Your task to perform on an android device: open app "LinkedIn" (install if not already installed) and enter user name: "dirt@inbox.com" and password: "receptionist" Image 0: 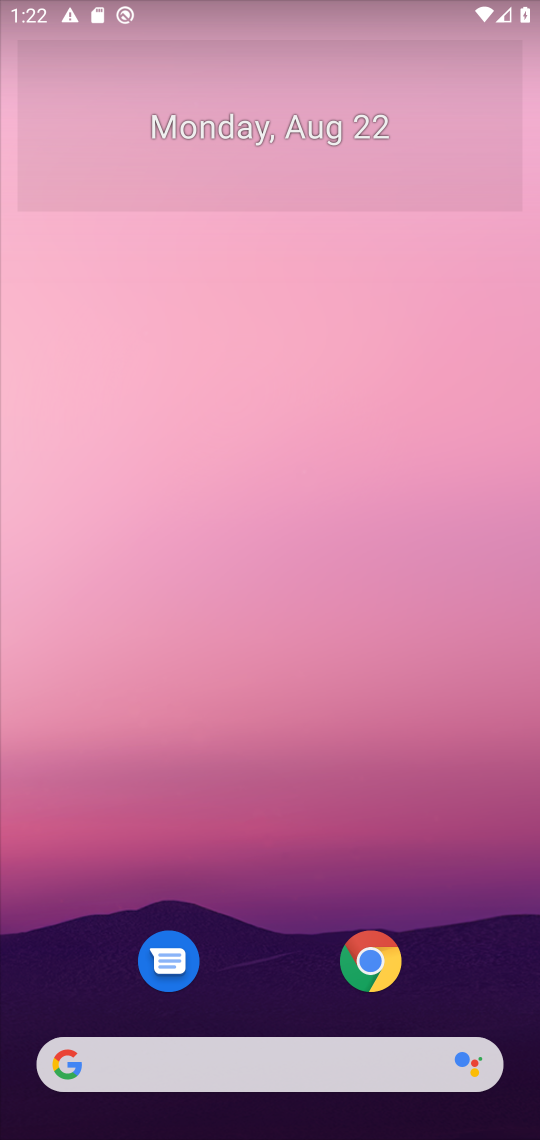
Step 0: press back button
Your task to perform on an android device: open app "LinkedIn" (install if not already installed) and enter user name: "dirt@inbox.com" and password: "receptionist" Image 1: 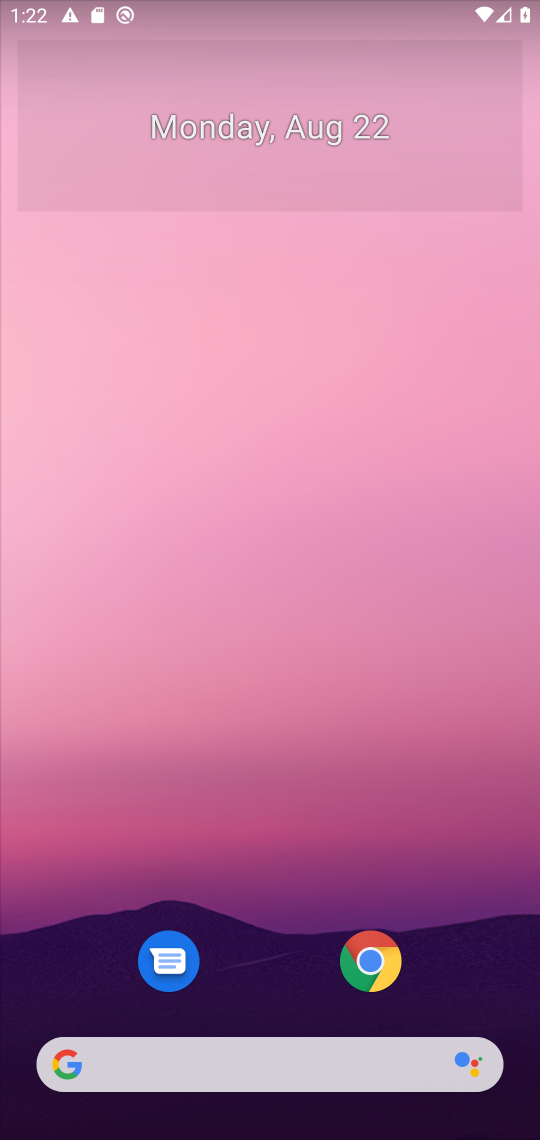
Step 1: press home button
Your task to perform on an android device: open app "LinkedIn" (install if not already installed) and enter user name: "dirt@inbox.com" and password: "receptionist" Image 2: 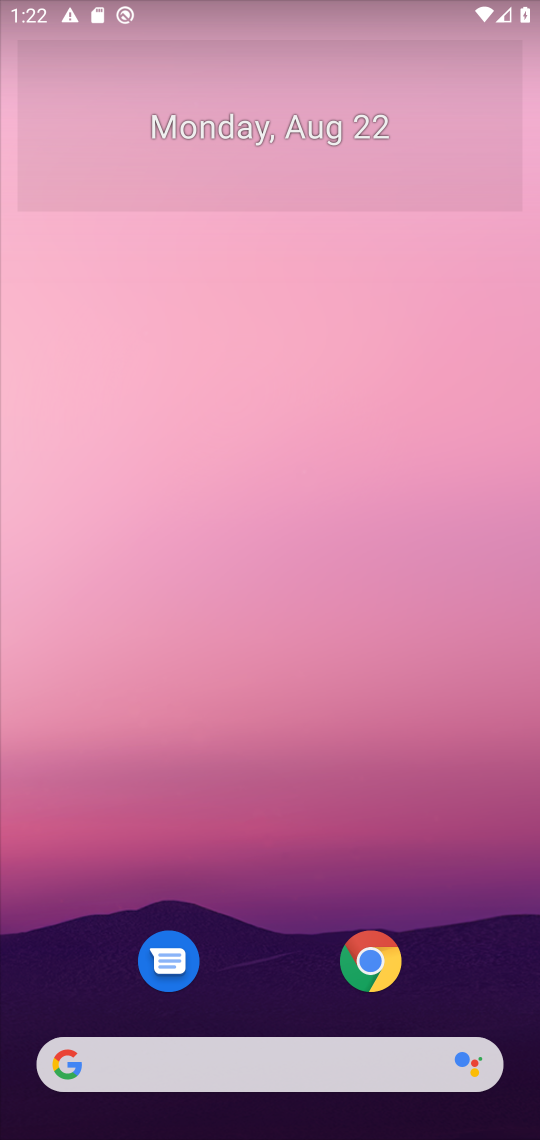
Step 2: drag from (487, 967) to (462, 258)
Your task to perform on an android device: open app "LinkedIn" (install if not already installed) and enter user name: "dirt@inbox.com" and password: "receptionist" Image 3: 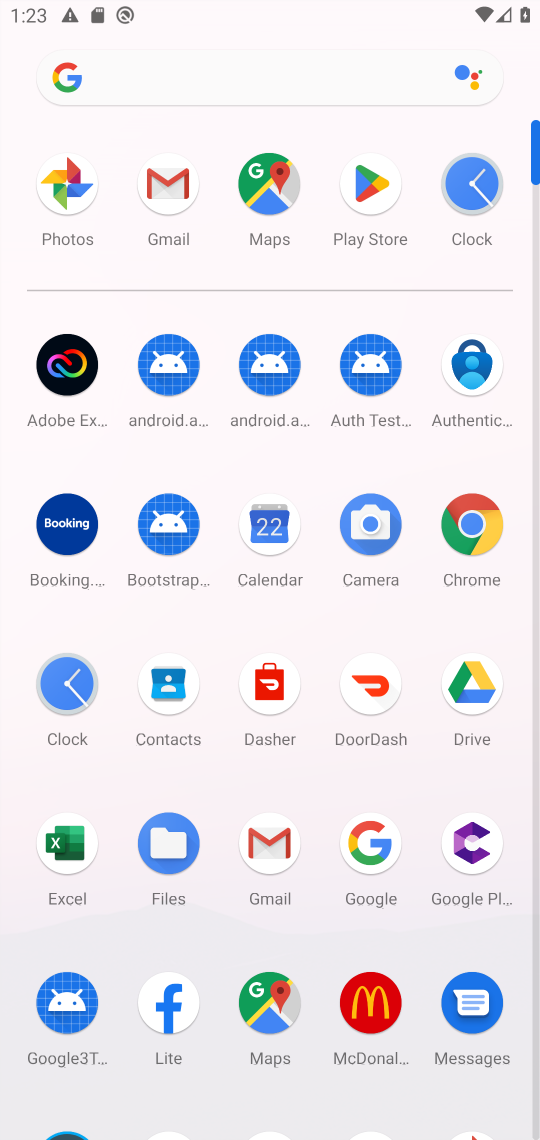
Step 3: click (371, 181)
Your task to perform on an android device: open app "LinkedIn" (install if not already installed) and enter user name: "dirt@inbox.com" and password: "receptionist" Image 4: 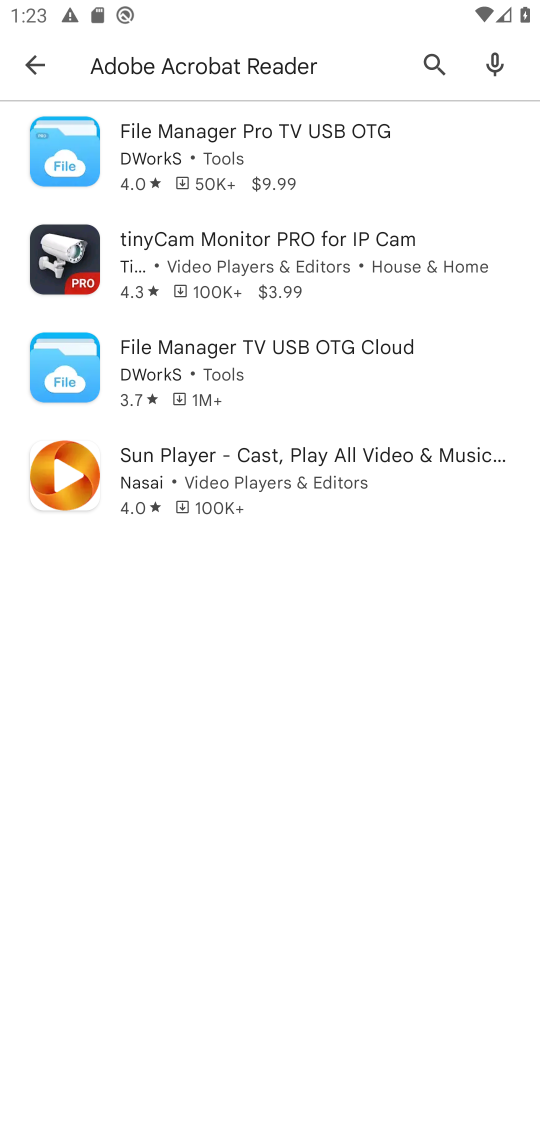
Step 4: press back button
Your task to perform on an android device: open app "LinkedIn" (install if not already installed) and enter user name: "dirt@inbox.com" and password: "receptionist" Image 5: 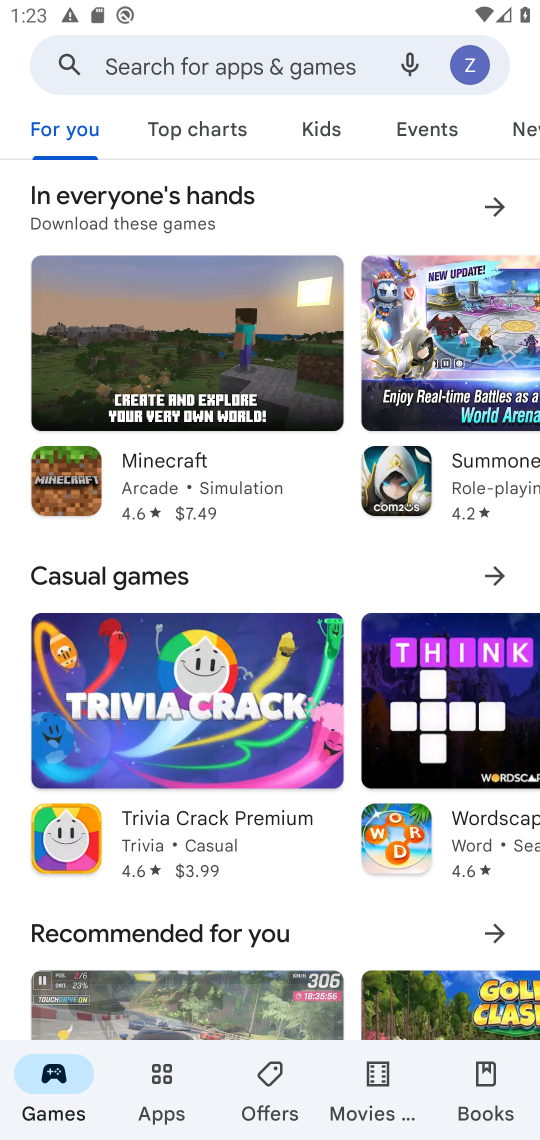
Step 5: press back button
Your task to perform on an android device: open app "LinkedIn" (install if not already installed) and enter user name: "dirt@inbox.com" and password: "receptionist" Image 6: 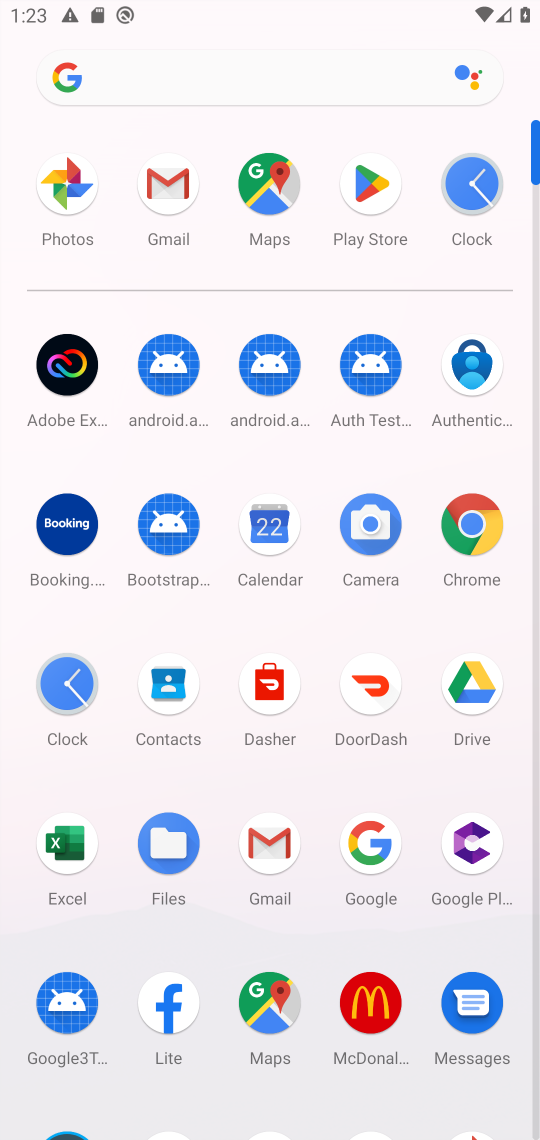
Step 6: click (365, 185)
Your task to perform on an android device: open app "LinkedIn" (install if not already installed) and enter user name: "dirt@inbox.com" and password: "receptionist" Image 7: 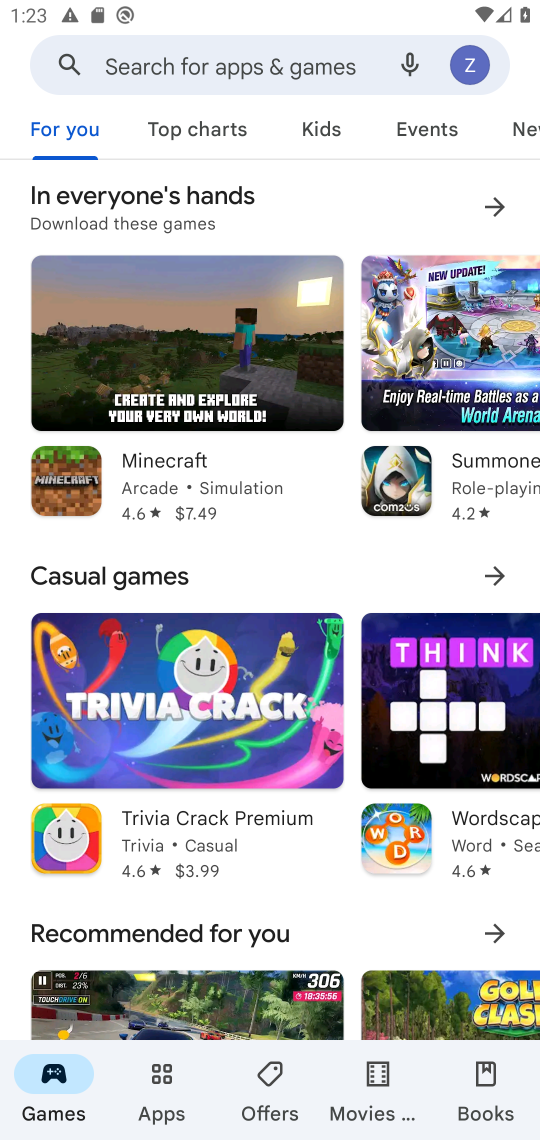
Step 7: click (316, 63)
Your task to perform on an android device: open app "LinkedIn" (install if not already installed) and enter user name: "dirt@inbox.com" and password: "receptionist" Image 8: 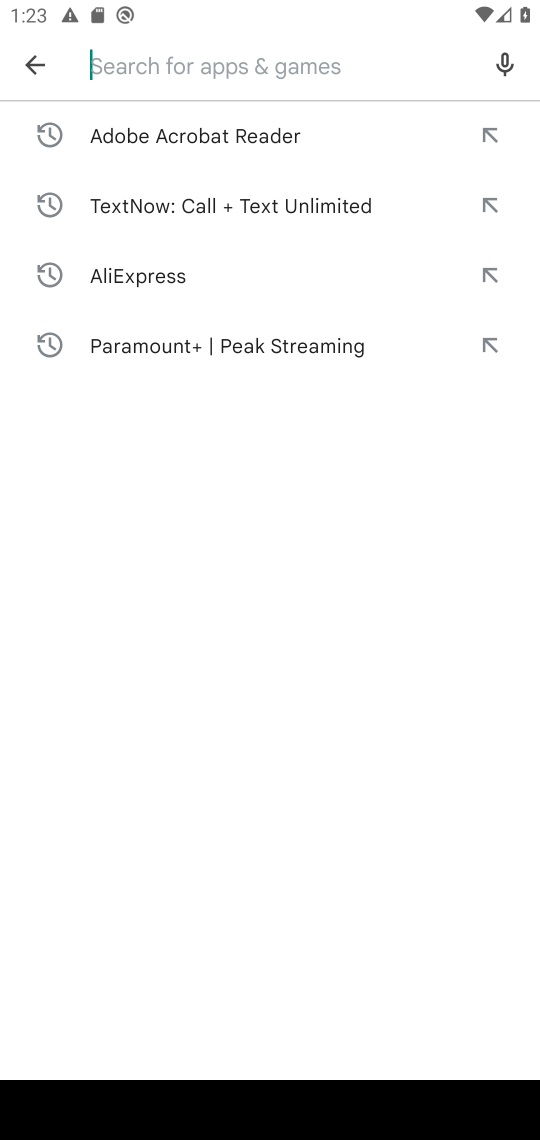
Step 8: type "linkedin"
Your task to perform on an android device: open app "LinkedIn" (install if not already installed) and enter user name: "dirt@inbox.com" and password: "receptionist" Image 9: 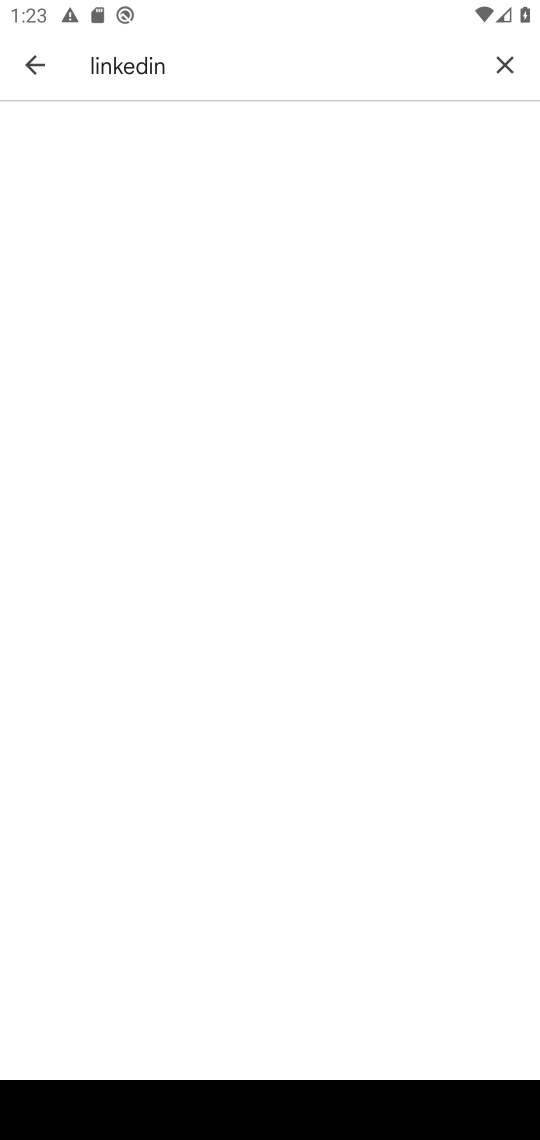
Step 9: task complete